Your task to perform on an android device: Open calendar and show me the first week of next month Image 0: 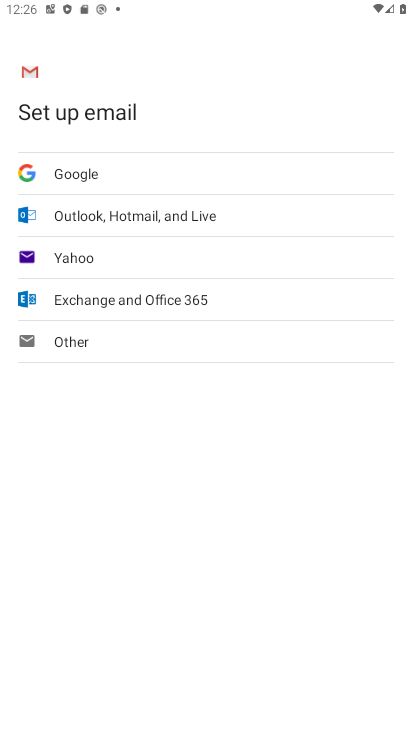
Step 0: press home button
Your task to perform on an android device: Open calendar and show me the first week of next month Image 1: 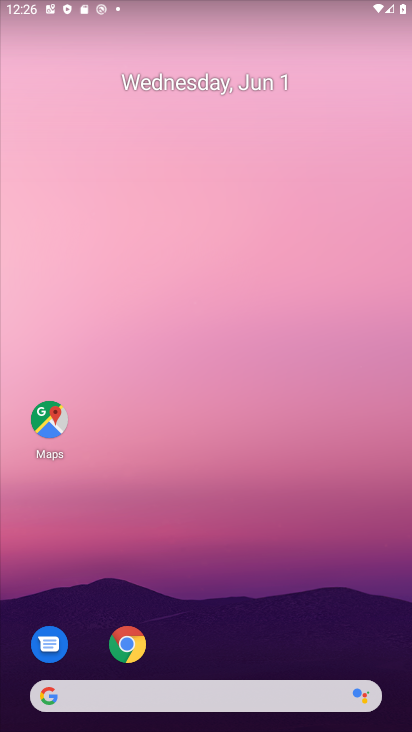
Step 1: drag from (306, 612) to (262, 245)
Your task to perform on an android device: Open calendar and show me the first week of next month Image 2: 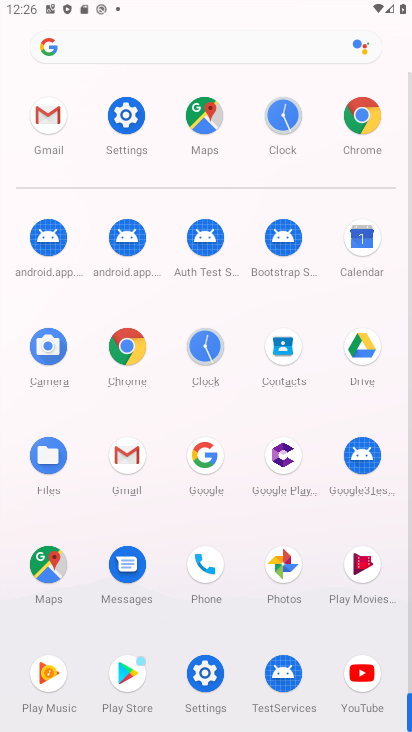
Step 2: click (373, 232)
Your task to perform on an android device: Open calendar and show me the first week of next month Image 3: 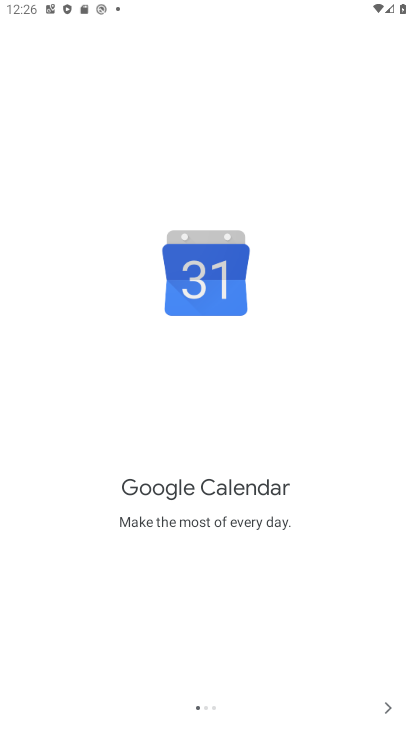
Step 3: click (382, 701)
Your task to perform on an android device: Open calendar and show me the first week of next month Image 4: 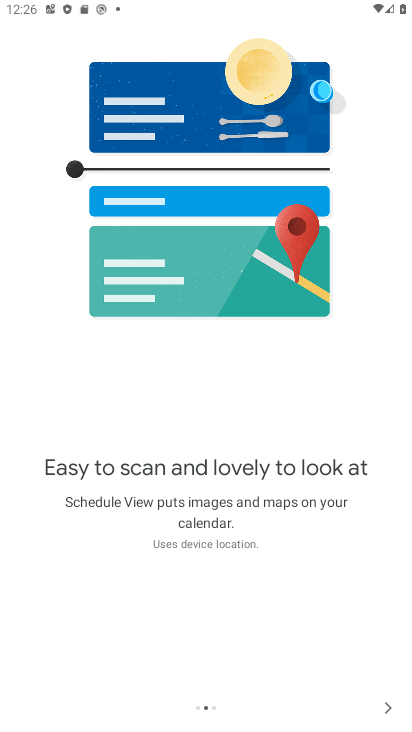
Step 4: click (382, 701)
Your task to perform on an android device: Open calendar and show me the first week of next month Image 5: 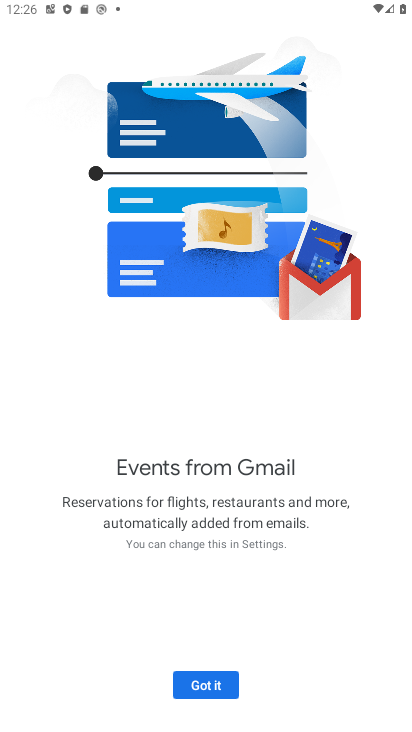
Step 5: click (200, 684)
Your task to perform on an android device: Open calendar and show me the first week of next month Image 6: 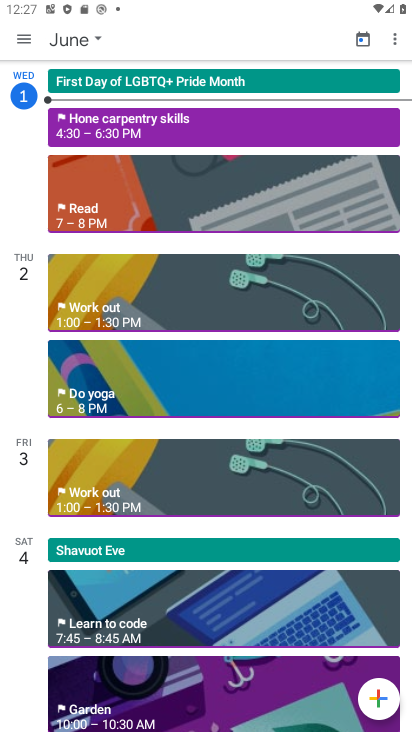
Step 6: click (57, 36)
Your task to perform on an android device: Open calendar and show me the first week of next month Image 7: 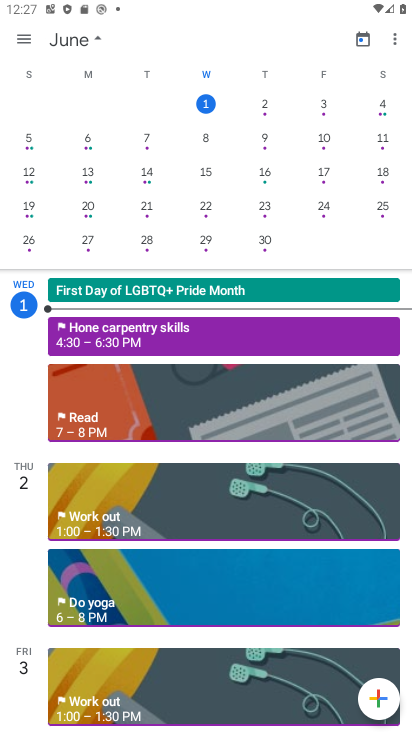
Step 7: task complete